Your task to perform on an android device: Search for seafood restaurants on Google Maps Image 0: 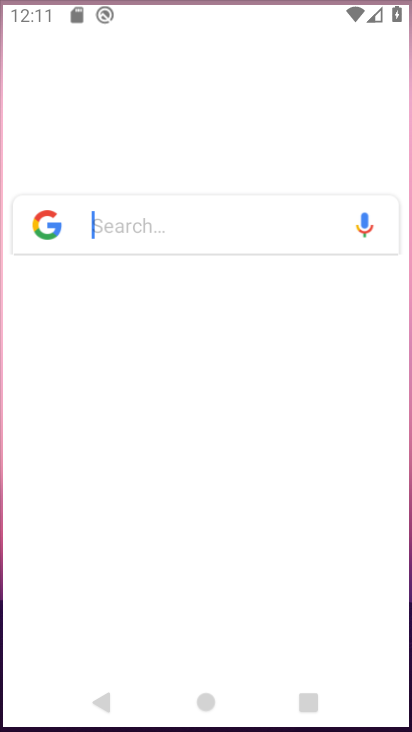
Step 0: drag from (404, 623) to (318, 234)
Your task to perform on an android device: Search for seafood restaurants on Google Maps Image 1: 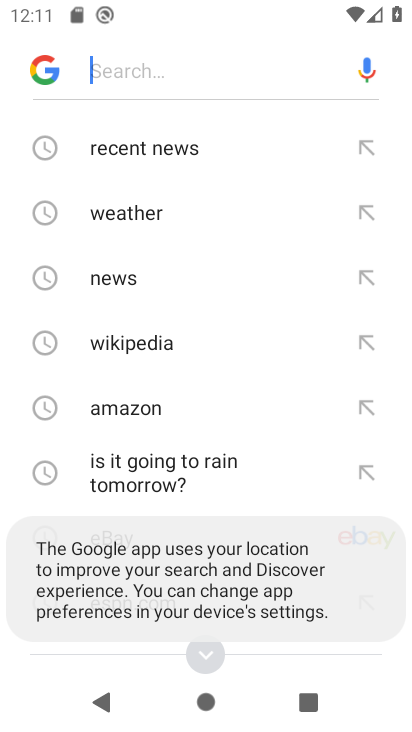
Step 1: press home button
Your task to perform on an android device: Search for seafood restaurants on Google Maps Image 2: 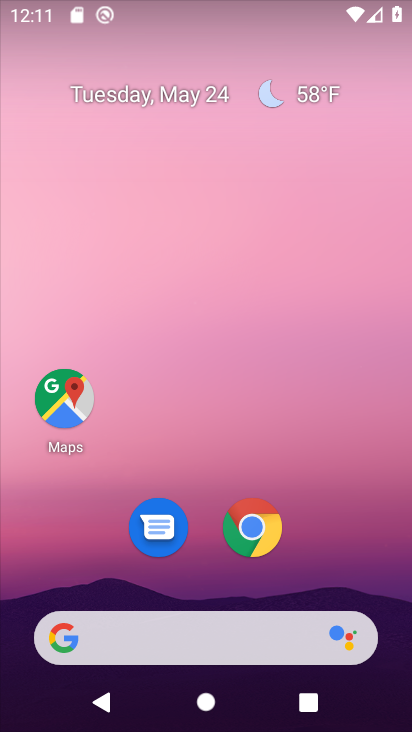
Step 2: click (54, 401)
Your task to perform on an android device: Search for seafood restaurants on Google Maps Image 3: 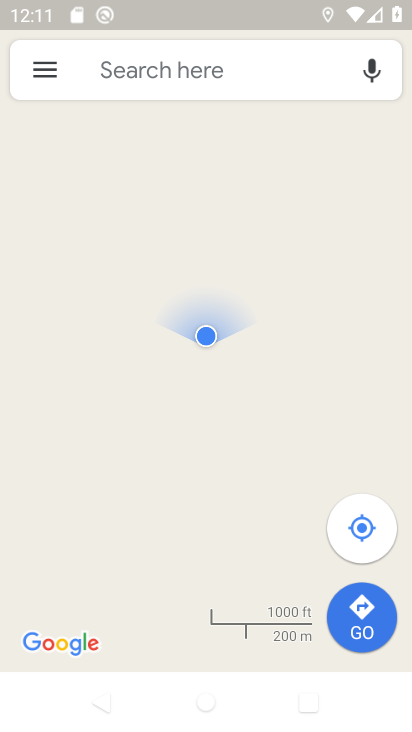
Step 3: click (164, 81)
Your task to perform on an android device: Search for seafood restaurants on Google Maps Image 4: 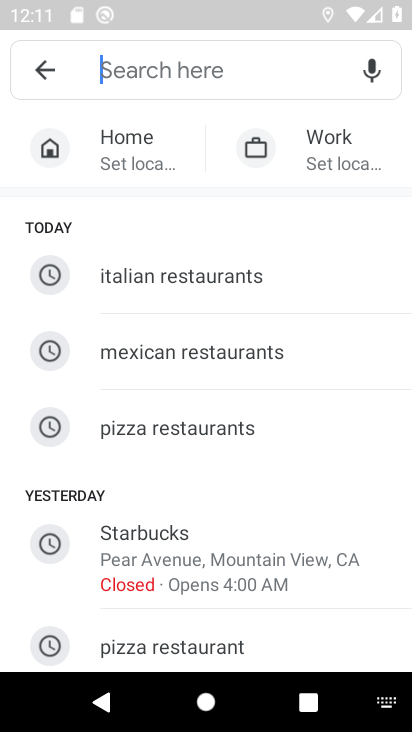
Step 4: type "seafood restaurants"
Your task to perform on an android device: Search for seafood restaurants on Google Maps Image 5: 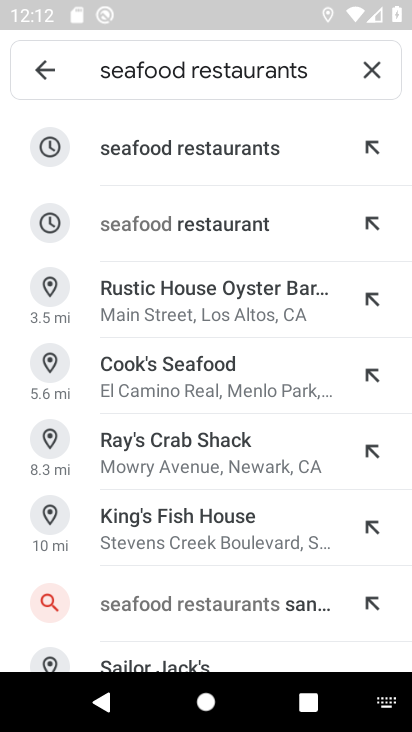
Step 5: click (252, 124)
Your task to perform on an android device: Search for seafood restaurants on Google Maps Image 6: 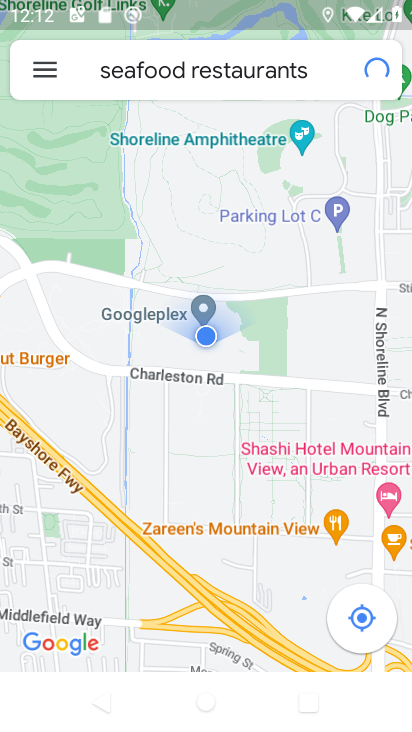
Step 6: task complete